Your task to perform on an android device: star an email in the gmail app Image 0: 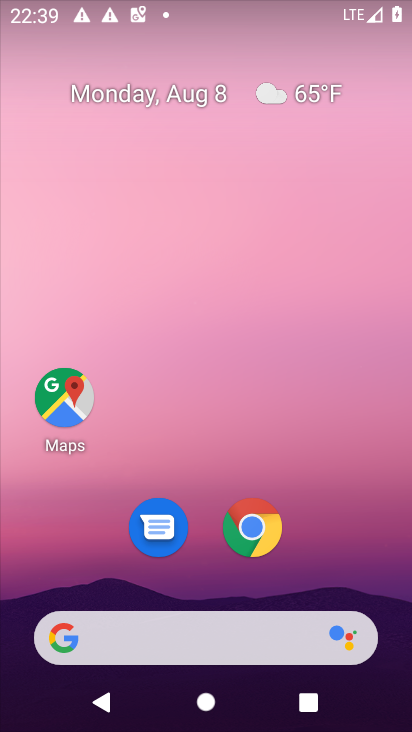
Step 0: drag from (384, 668) to (402, 162)
Your task to perform on an android device: star an email in the gmail app Image 1: 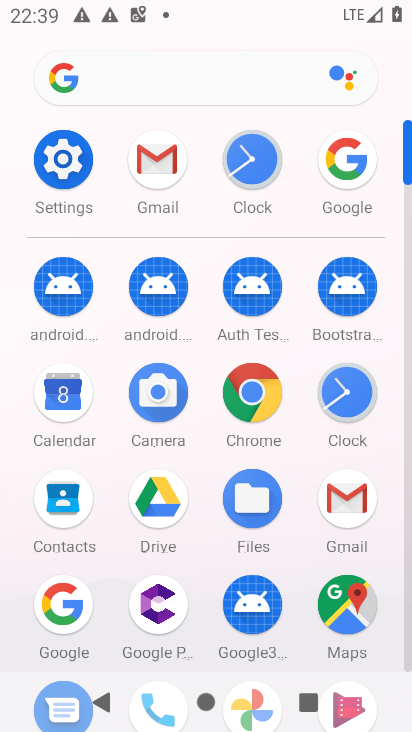
Step 1: click (339, 488)
Your task to perform on an android device: star an email in the gmail app Image 2: 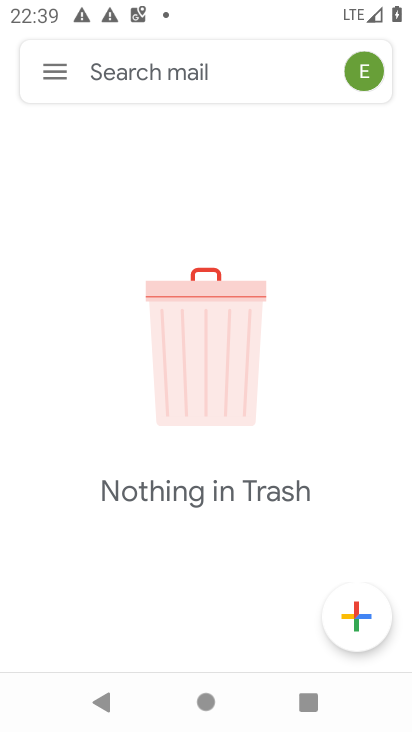
Step 2: click (53, 67)
Your task to perform on an android device: star an email in the gmail app Image 3: 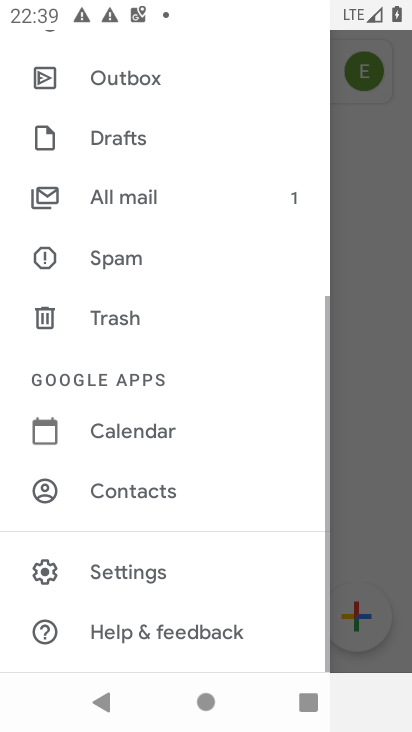
Step 3: drag from (216, 200) to (236, 548)
Your task to perform on an android device: star an email in the gmail app Image 4: 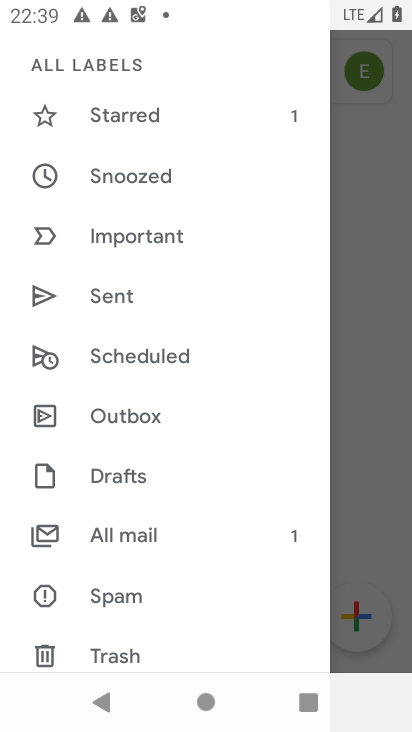
Step 4: drag from (248, 169) to (236, 524)
Your task to perform on an android device: star an email in the gmail app Image 5: 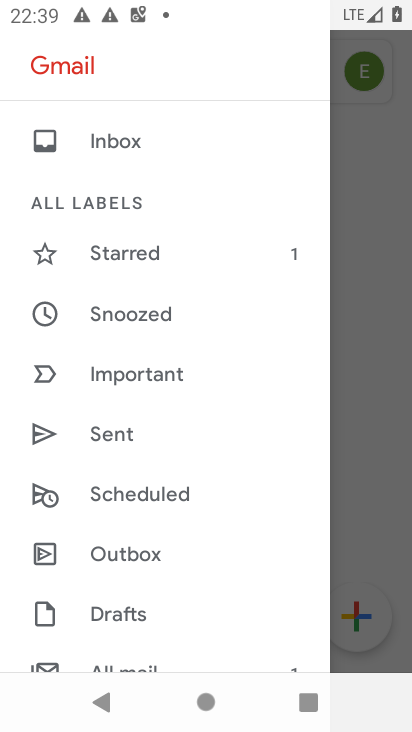
Step 5: click (107, 137)
Your task to perform on an android device: star an email in the gmail app Image 6: 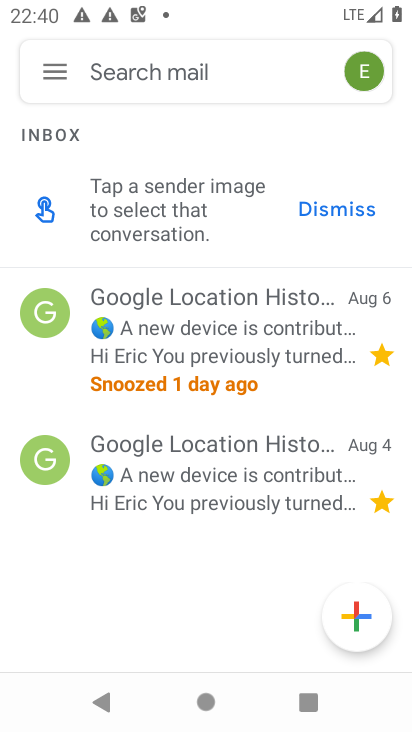
Step 6: task complete